Your task to perform on an android device: see sites visited before in the chrome app Image 0: 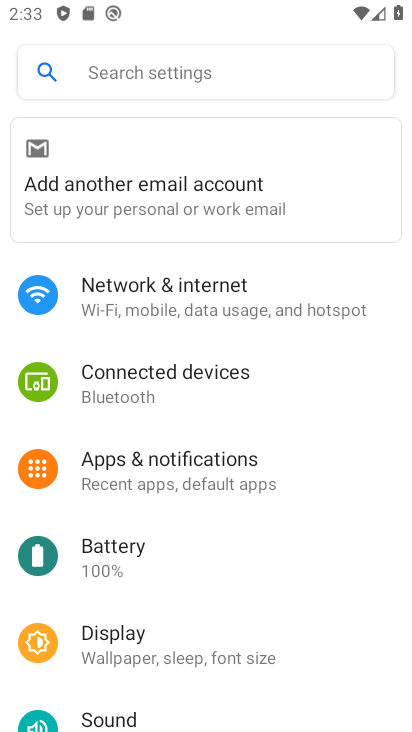
Step 0: press home button
Your task to perform on an android device: see sites visited before in the chrome app Image 1: 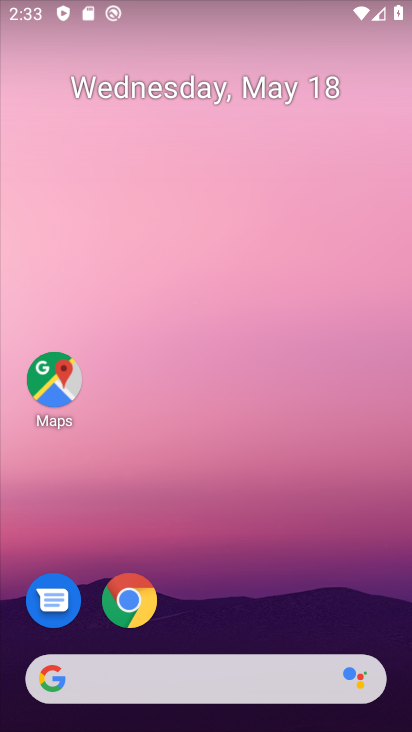
Step 1: click (130, 612)
Your task to perform on an android device: see sites visited before in the chrome app Image 2: 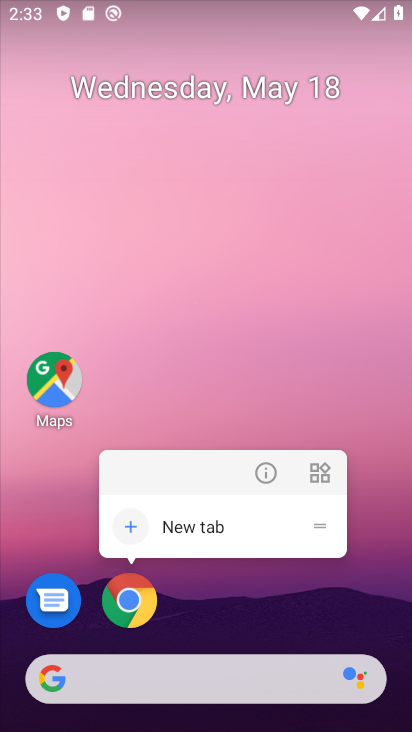
Step 2: click (134, 613)
Your task to perform on an android device: see sites visited before in the chrome app Image 3: 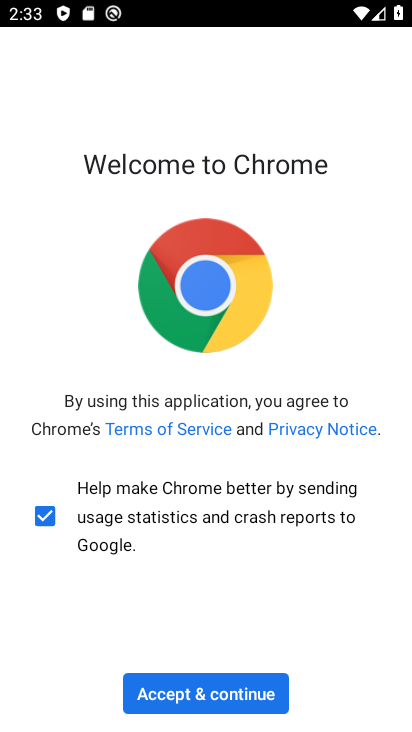
Step 3: click (134, 613)
Your task to perform on an android device: see sites visited before in the chrome app Image 4: 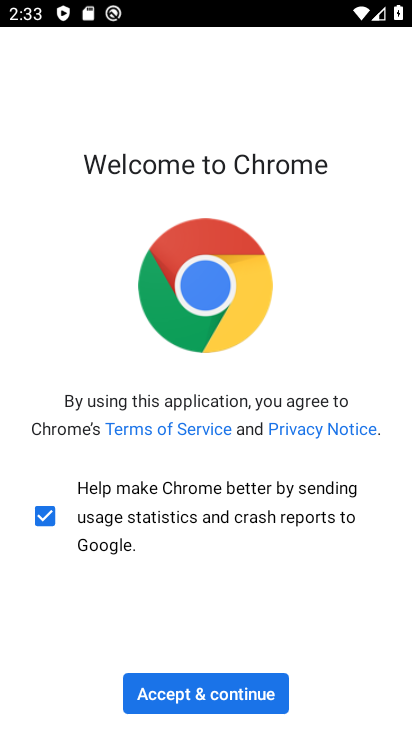
Step 4: click (184, 691)
Your task to perform on an android device: see sites visited before in the chrome app Image 5: 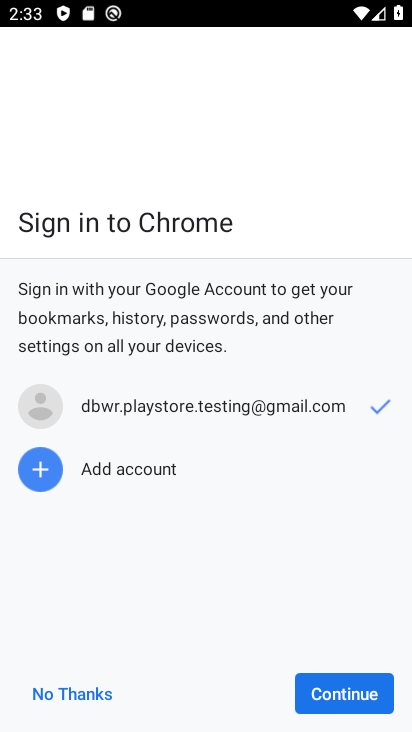
Step 5: click (340, 697)
Your task to perform on an android device: see sites visited before in the chrome app Image 6: 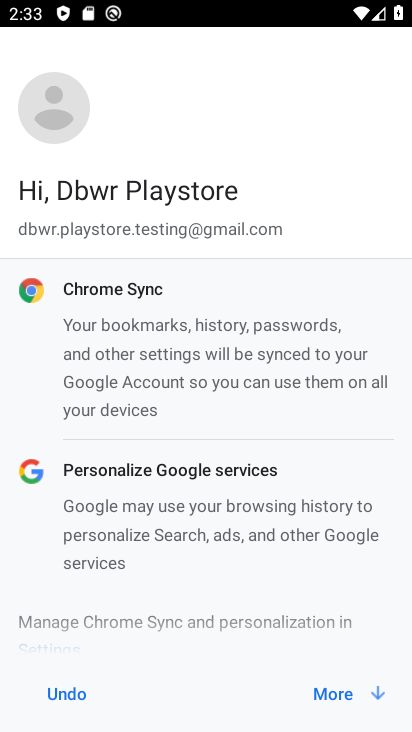
Step 6: click (340, 697)
Your task to perform on an android device: see sites visited before in the chrome app Image 7: 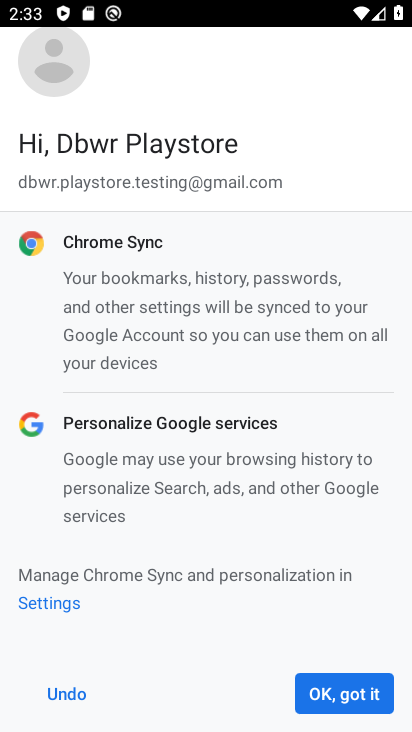
Step 7: click (360, 700)
Your task to perform on an android device: see sites visited before in the chrome app Image 8: 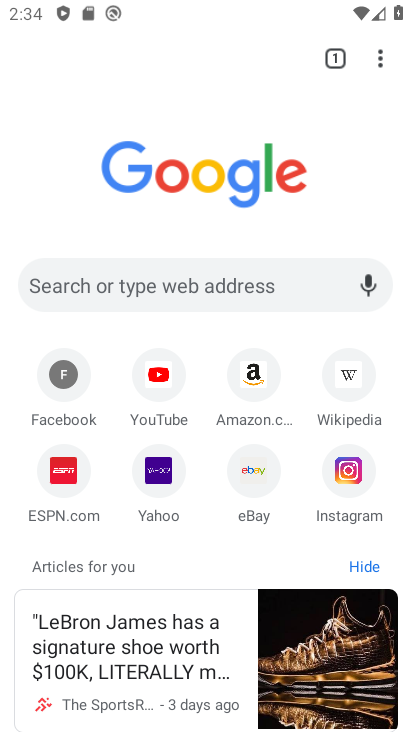
Step 8: task complete